Your task to perform on an android device: toggle notification dots Image 0: 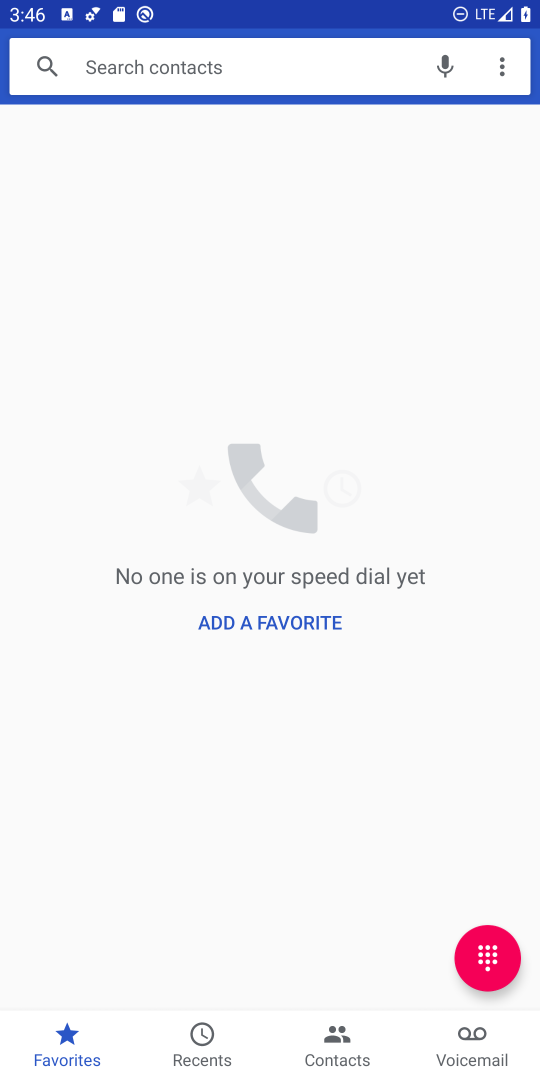
Step 0: press home button
Your task to perform on an android device: toggle notification dots Image 1: 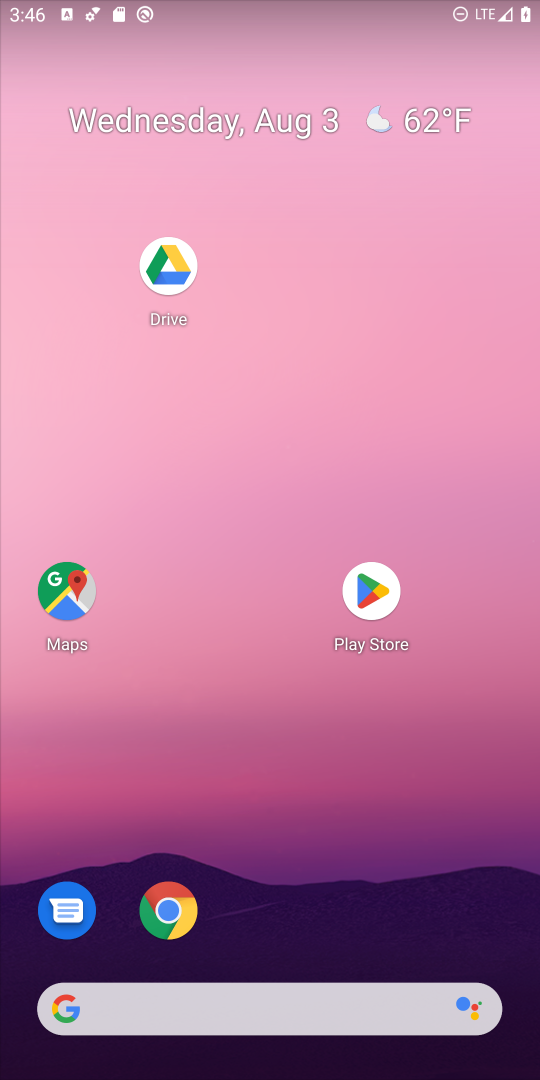
Step 1: drag from (449, 696) to (504, 8)
Your task to perform on an android device: toggle notification dots Image 2: 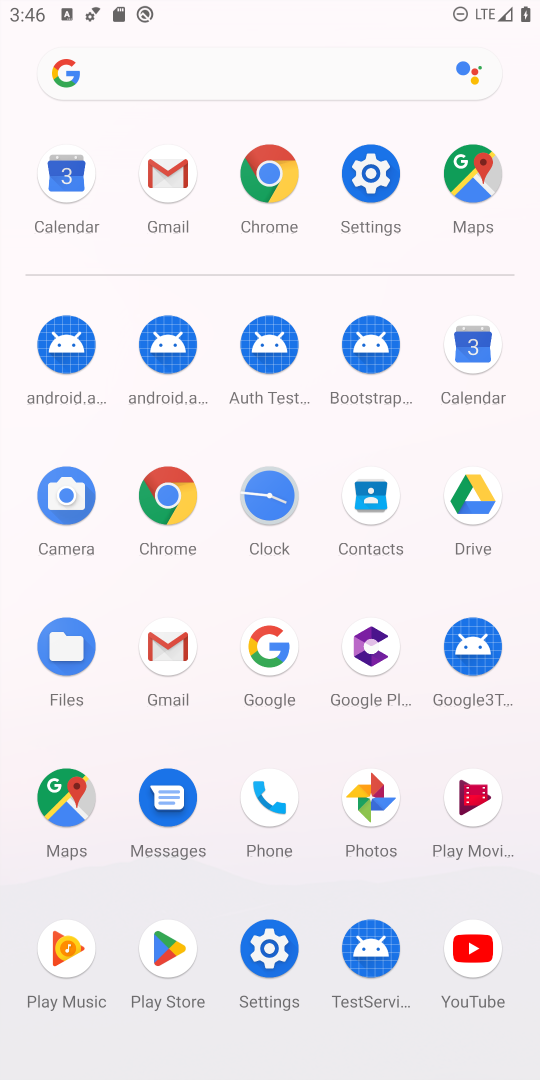
Step 2: click (363, 172)
Your task to perform on an android device: toggle notification dots Image 3: 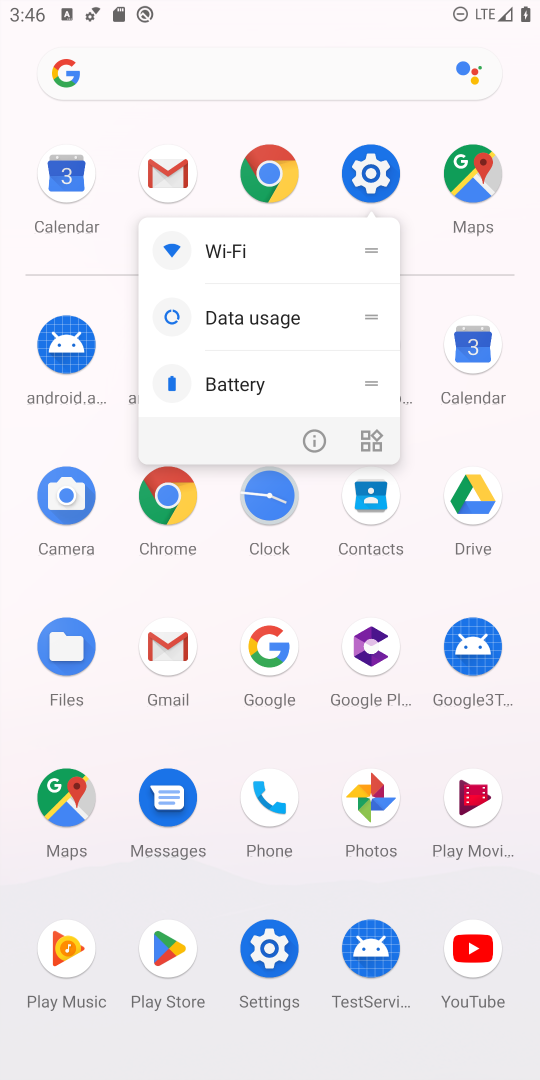
Step 3: click (363, 184)
Your task to perform on an android device: toggle notification dots Image 4: 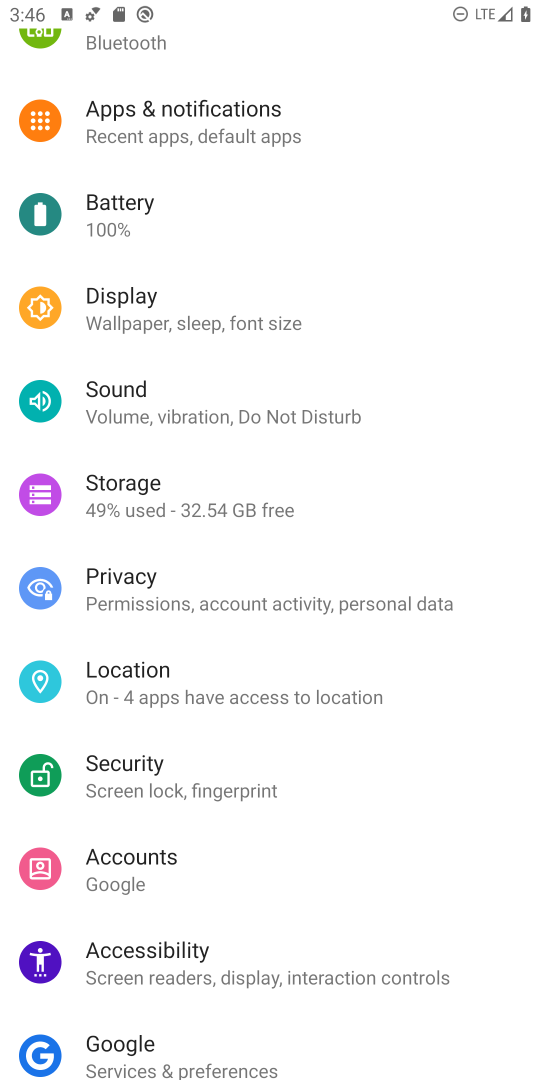
Step 4: click (206, 130)
Your task to perform on an android device: toggle notification dots Image 5: 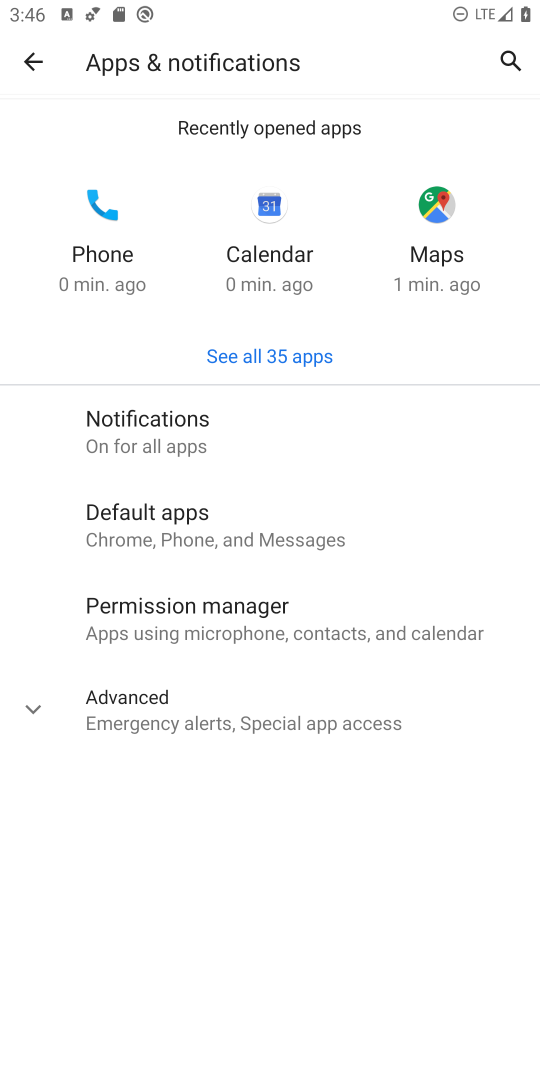
Step 5: click (272, 733)
Your task to perform on an android device: toggle notification dots Image 6: 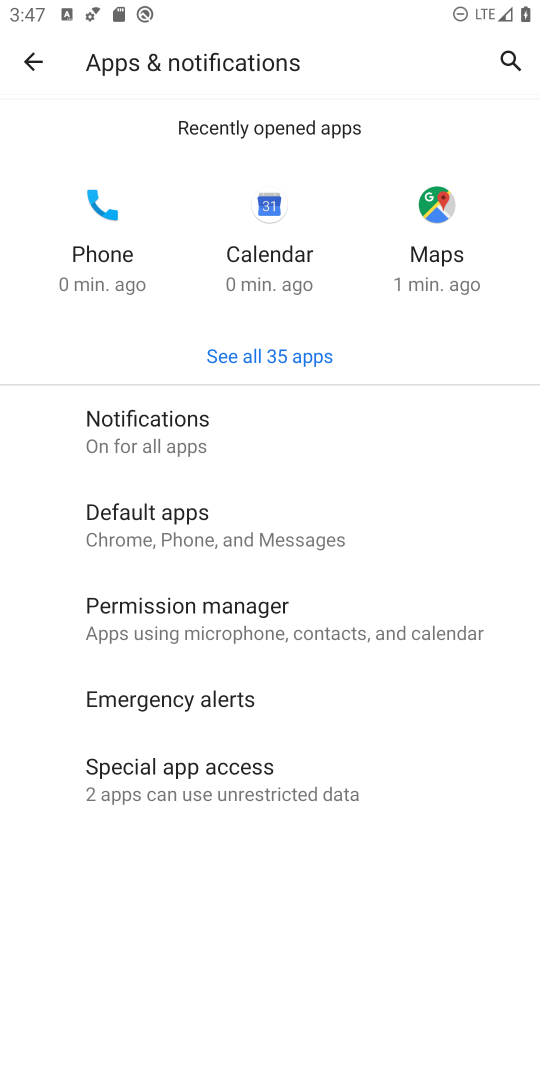
Step 6: click (202, 428)
Your task to perform on an android device: toggle notification dots Image 7: 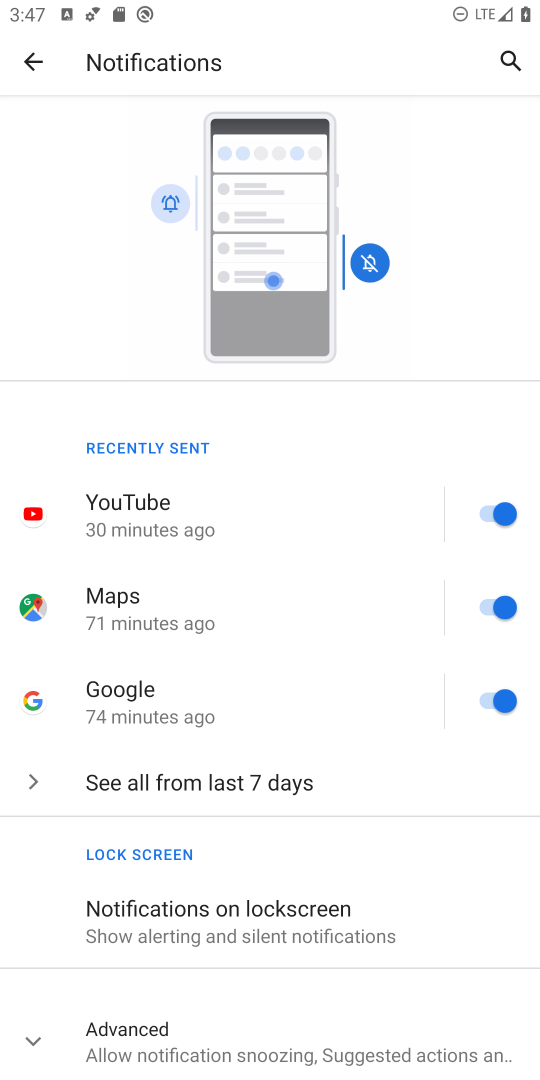
Step 7: drag from (324, 742) to (425, 261)
Your task to perform on an android device: toggle notification dots Image 8: 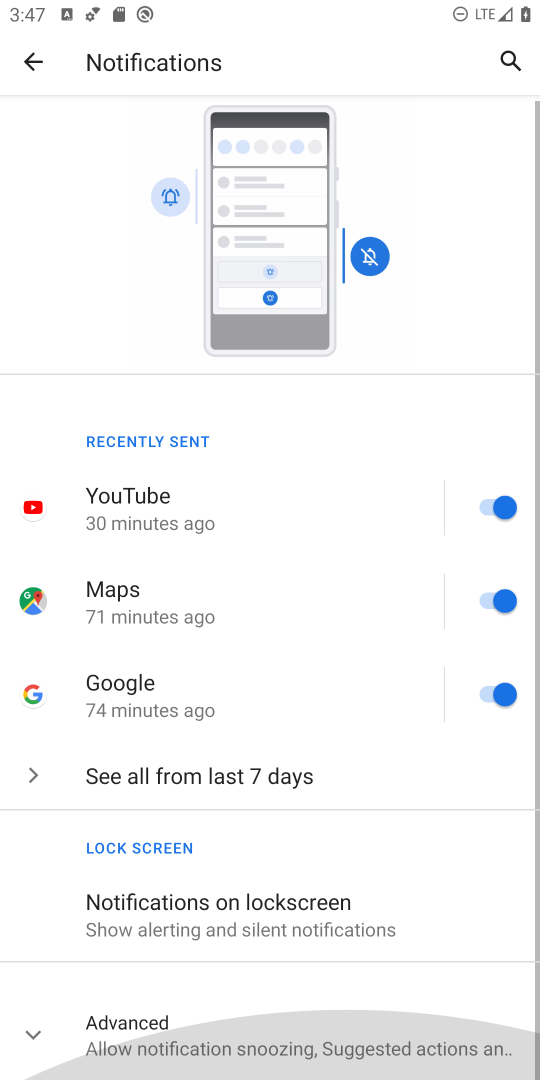
Step 8: click (166, 1049)
Your task to perform on an android device: toggle notification dots Image 9: 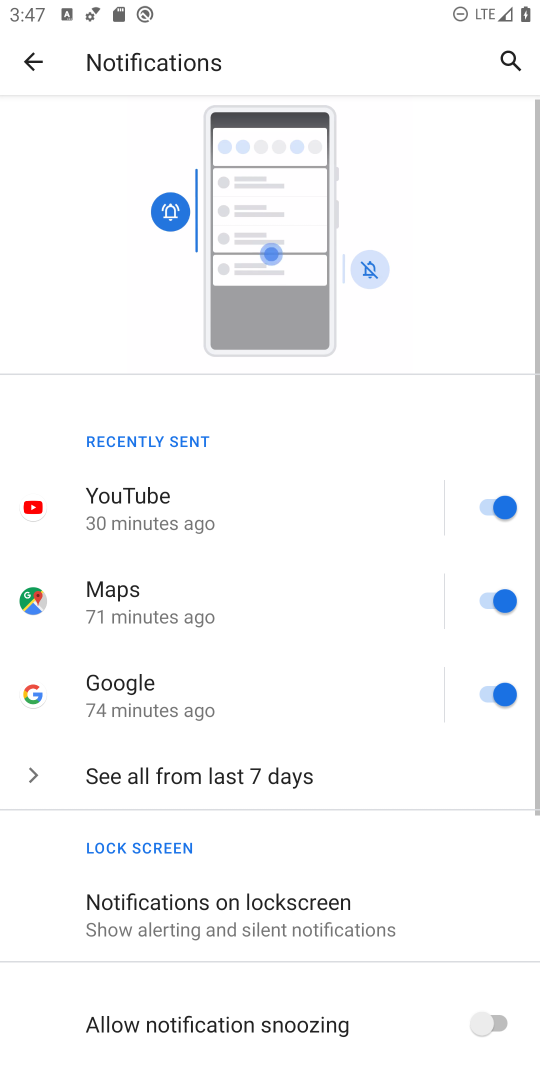
Step 9: drag from (168, 971) to (245, 456)
Your task to perform on an android device: toggle notification dots Image 10: 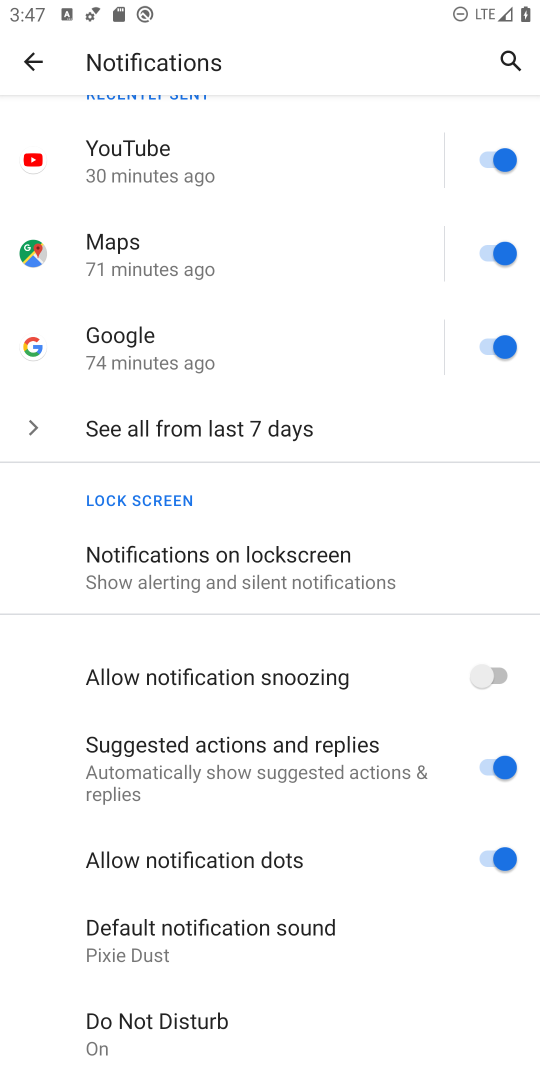
Step 10: click (499, 843)
Your task to perform on an android device: toggle notification dots Image 11: 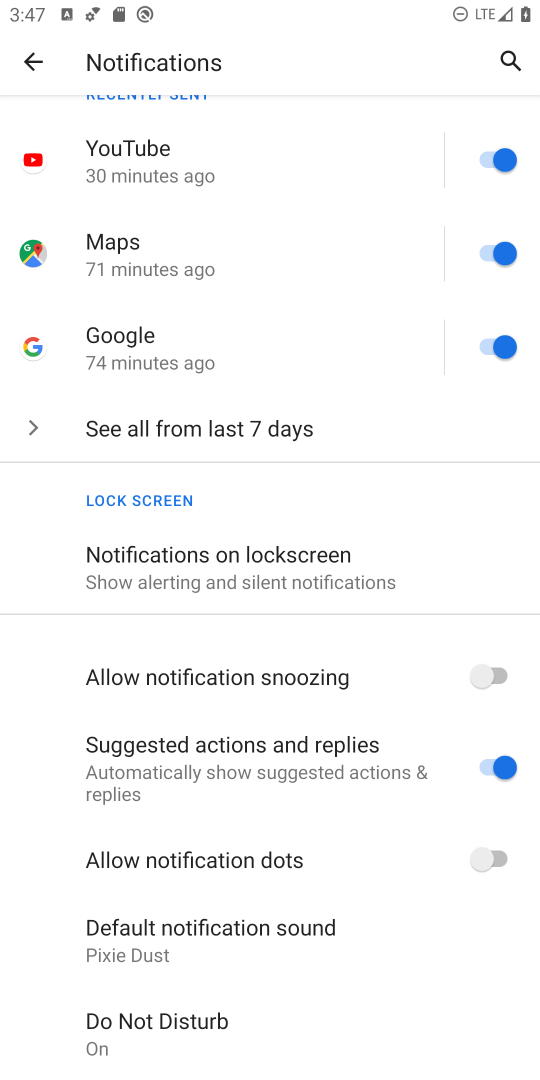
Step 11: task complete